Your task to perform on an android device: set the stopwatch Image 0: 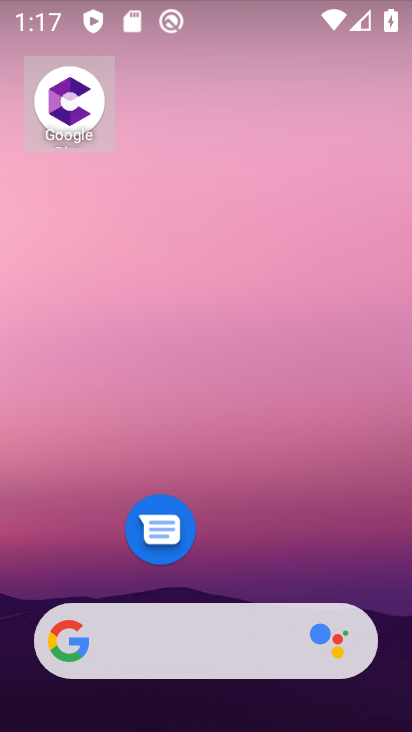
Step 0: drag from (243, 526) to (266, 189)
Your task to perform on an android device: set the stopwatch Image 1: 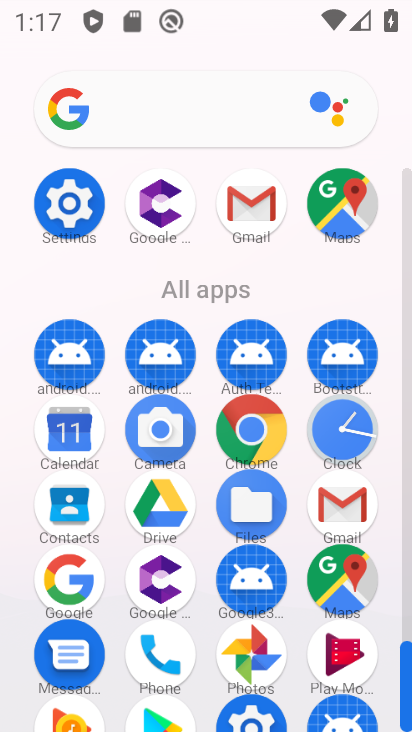
Step 1: click (340, 425)
Your task to perform on an android device: set the stopwatch Image 2: 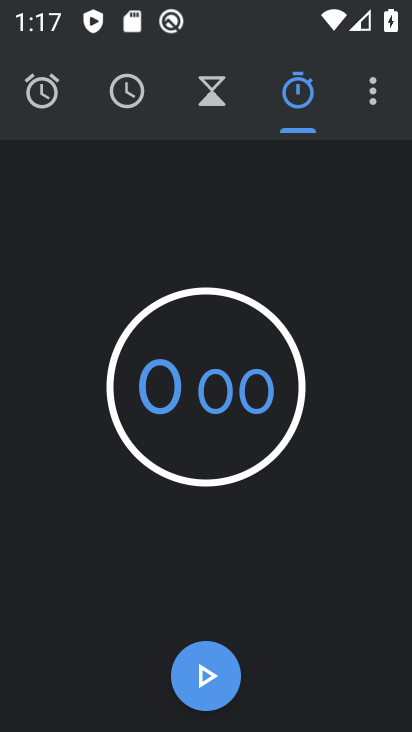
Step 2: click (362, 78)
Your task to perform on an android device: set the stopwatch Image 3: 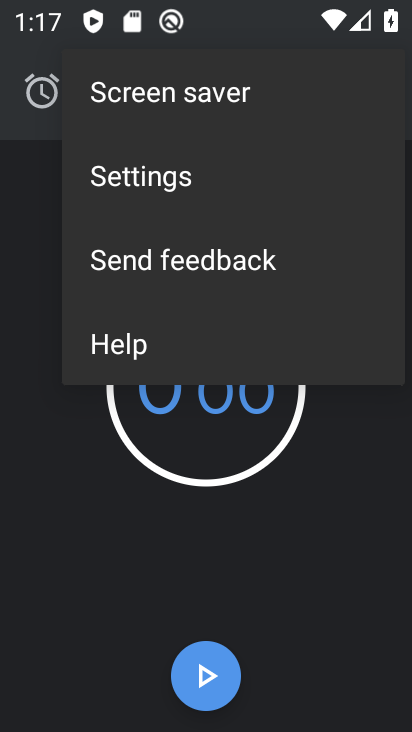
Step 3: click (261, 558)
Your task to perform on an android device: set the stopwatch Image 4: 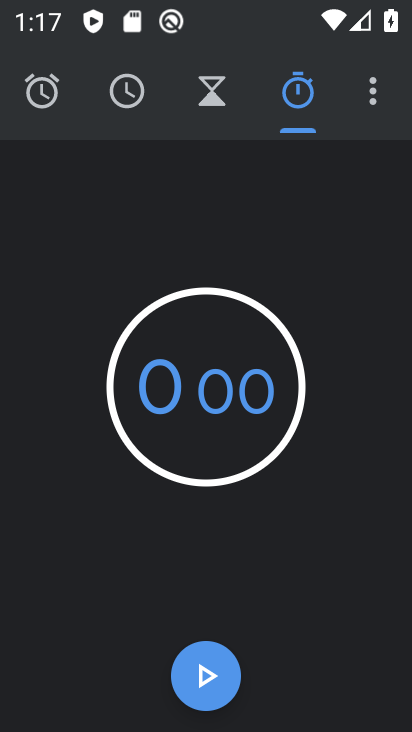
Step 4: click (214, 670)
Your task to perform on an android device: set the stopwatch Image 5: 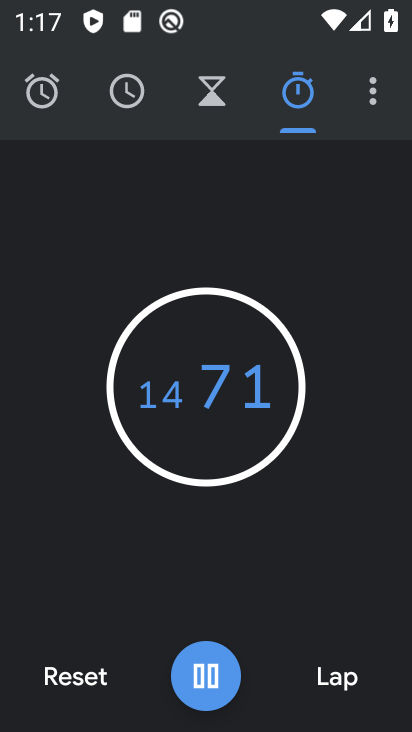
Step 5: task complete